Your task to perform on an android device: find photos in the google photos app Image 0: 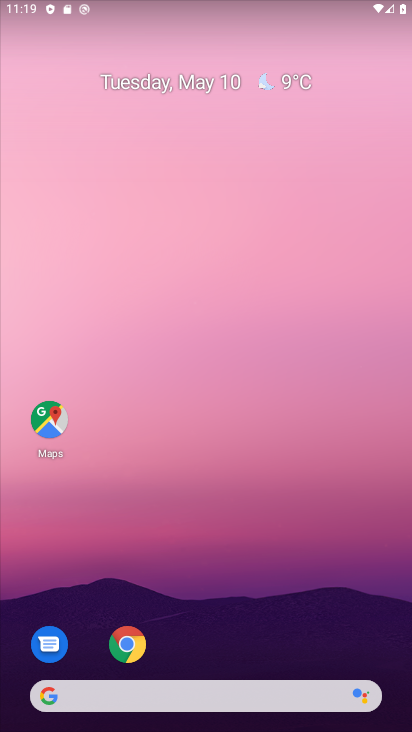
Step 0: drag from (210, 646) to (280, 165)
Your task to perform on an android device: find photos in the google photos app Image 1: 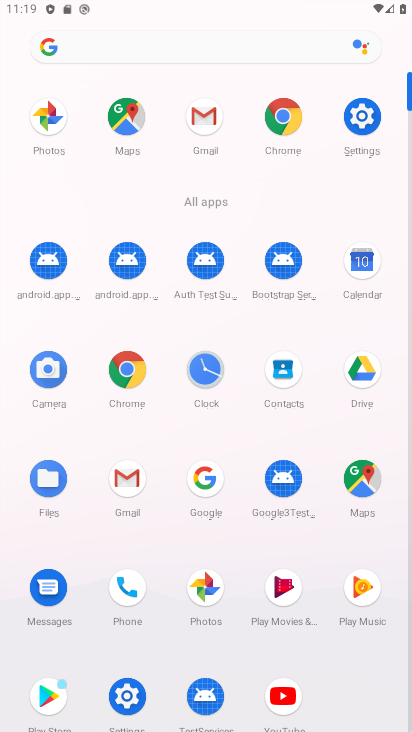
Step 1: click (205, 598)
Your task to perform on an android device: find photos in the google photos app Image 2: 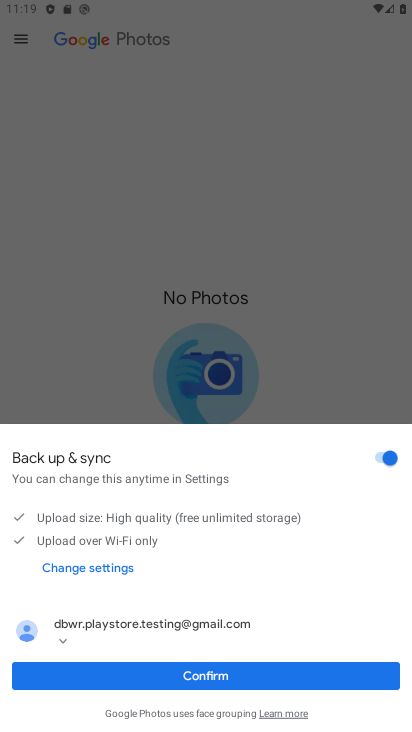
Step 2: click (244, 672)
Your task to perform on an android device: find photos in the google photos app Image 3: 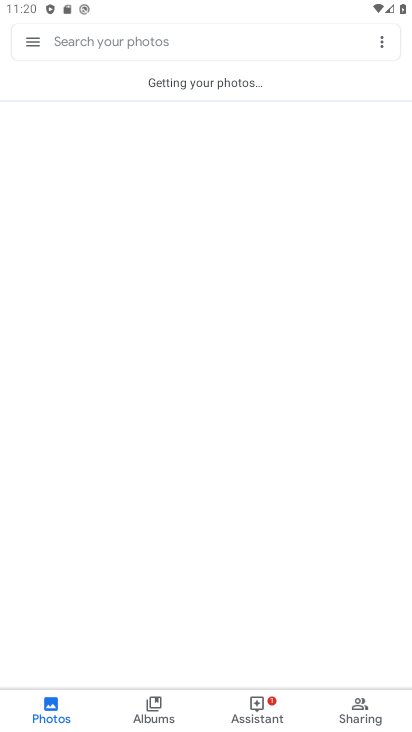
Step 3: drag from (219, 241) to (218, 377)
Your task to perform on an android device: find photos in the google photos app Image 4: 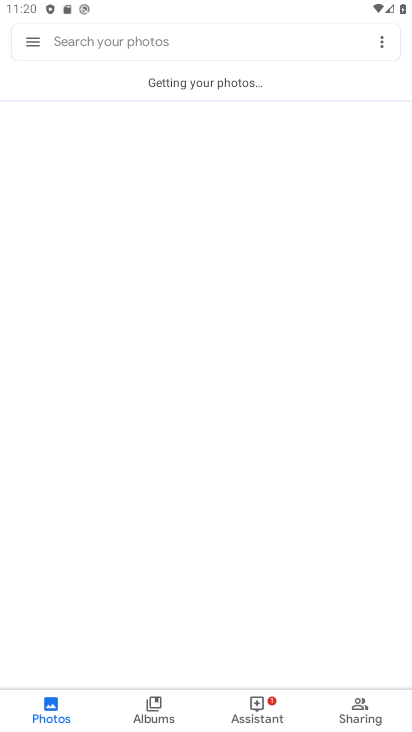
Step 4: drag from (229, 351) to (226, 493)
Your task to perform on an android device: find photos in the google photos app Image 5: 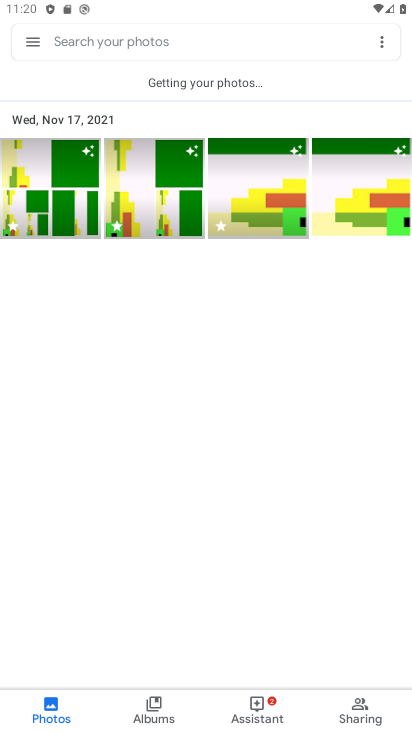
Step 5: click (93, 206)
Your task to perform on an android device: find photos in the google photos app Image 6: 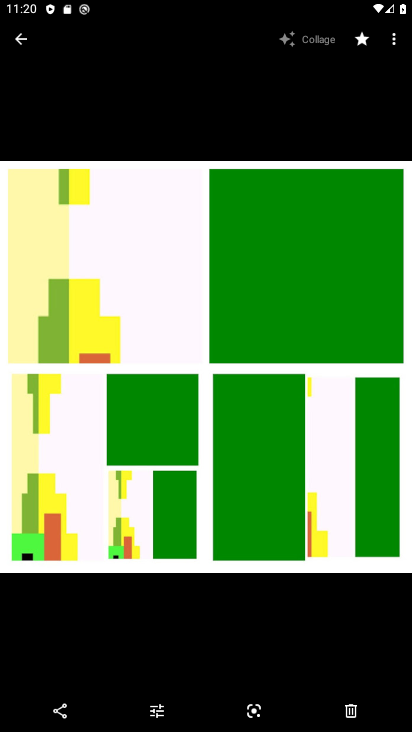
Step 6: task complete